Your task to perform on an android device: toggle notification dots Image 0: 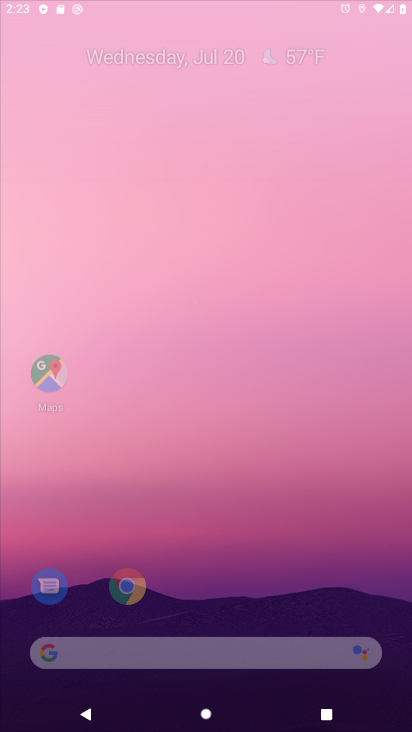
Step 0: click (251, 36)
Your task to perform on an android device: toggle notification dots Image 1: 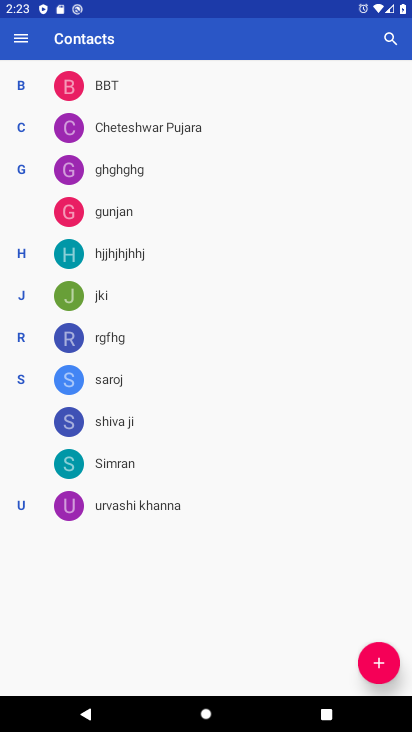
Step 1: press home button
Your task to perform on an android device: toggle notification dots Image 2: 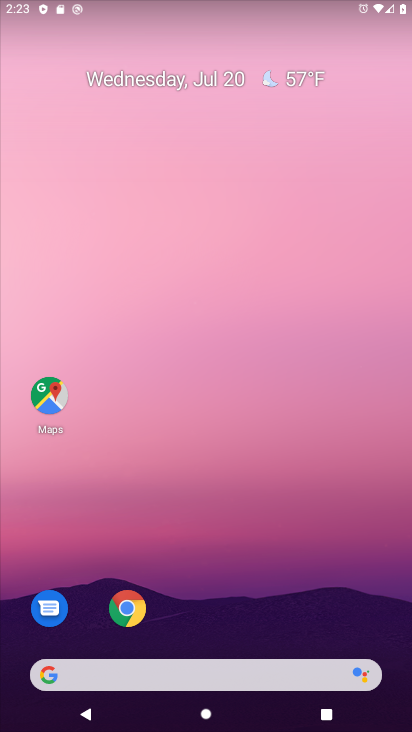
Step 2: drag from (258, 626) to (213, 178)
Your task to perform on an android device: toggle notification dots Image 3: 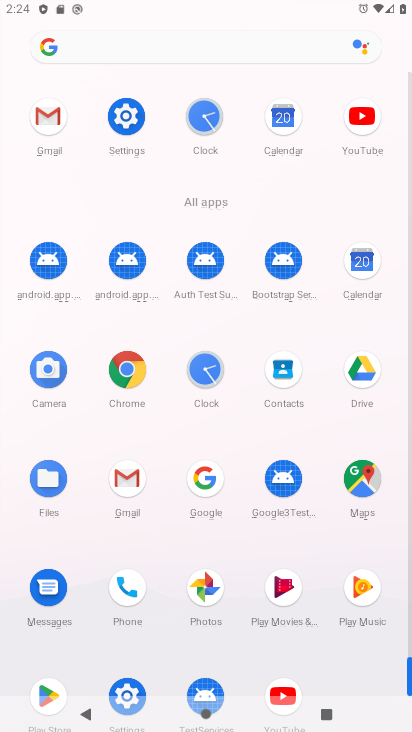
Step 3: click (124, 122)
Your task to perform on an android device: toggle notification dots Image 4: 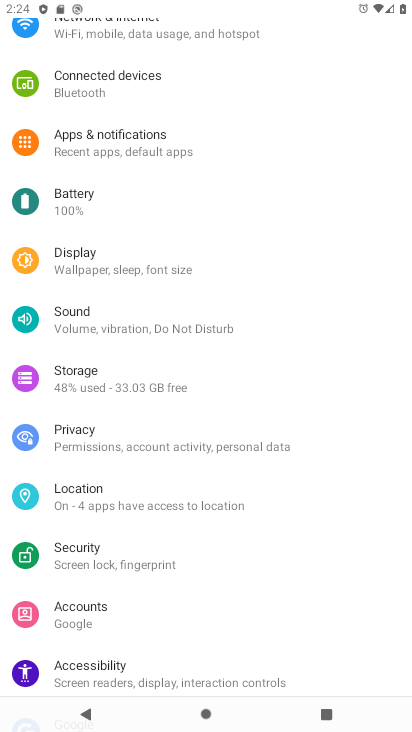
Step 4: click (109, 142)
Your task to perform on an android device: toggle notification dots Image 5: 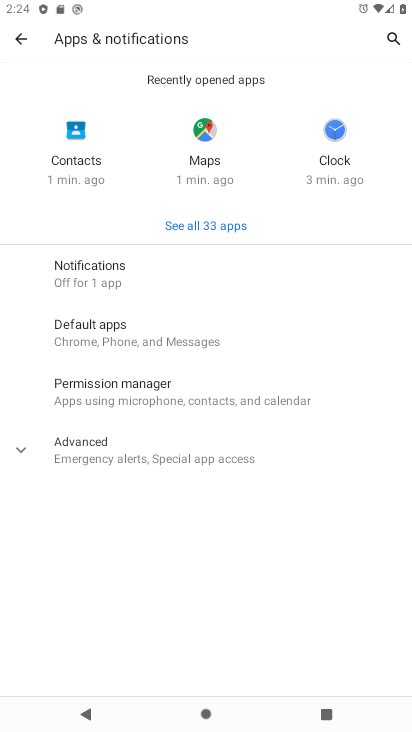
Step 5: click (150, 270)
Your task to perform on an android device: toggle notification dots Image 6: 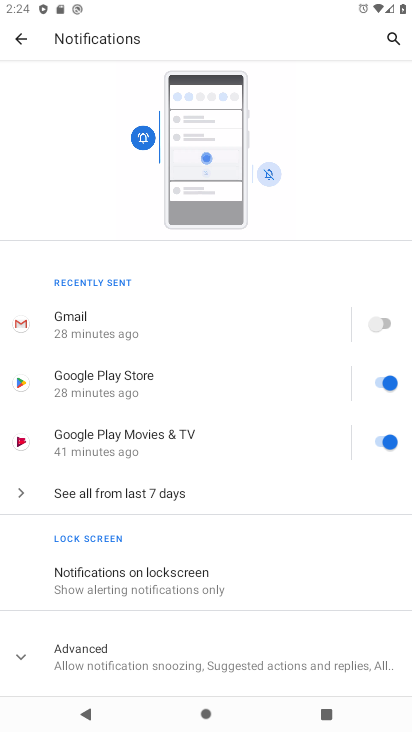
Step 6: click (123, 652)
Your task to perform on an android device: toggle notification dots Image 7: 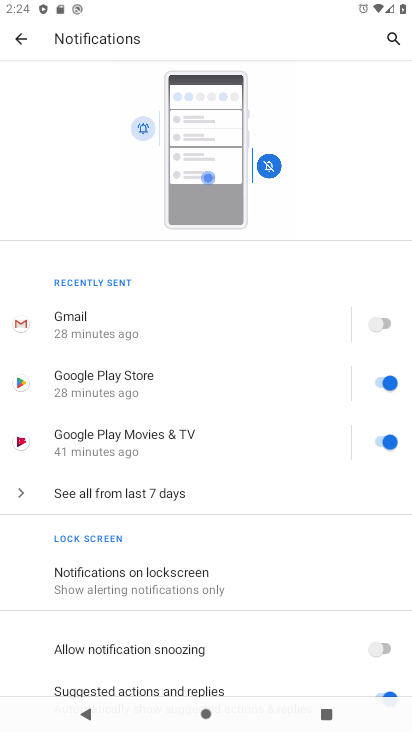
Step 7: drag from (158, 652) to (114, 247)
Your task to perform on an android device: toggle notification dots Image 8: 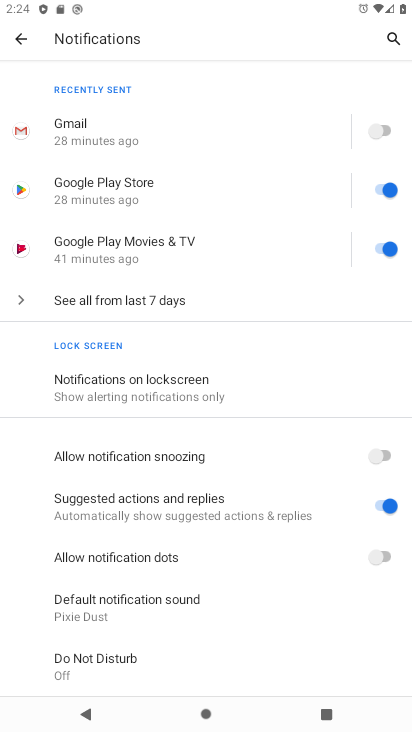
Step 8: click (378, 551)
Your task to perform on an android device: toggle notification dots Image 9: 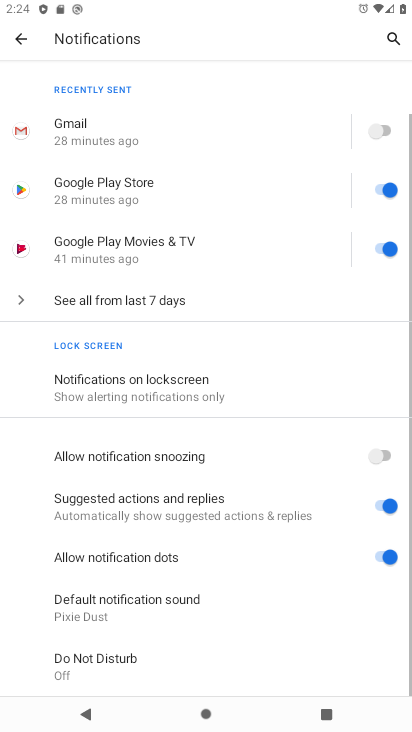
Step 9: task complete